Your task to perform on an android device: turn on sleep mode Image 0: 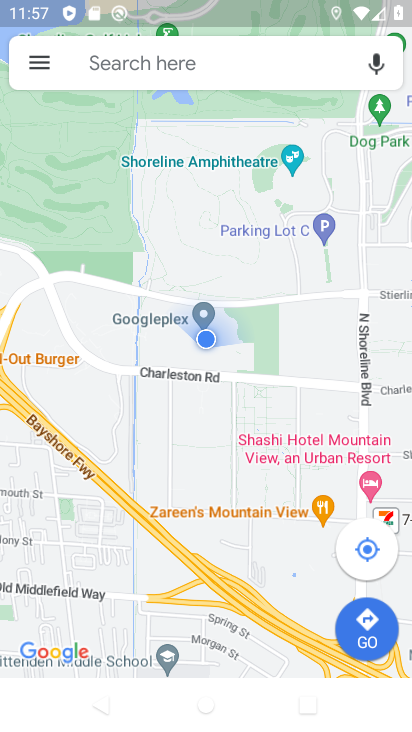
Step 0: press home button
Your task to perform on an android device: turn on sleep mode Image 1: 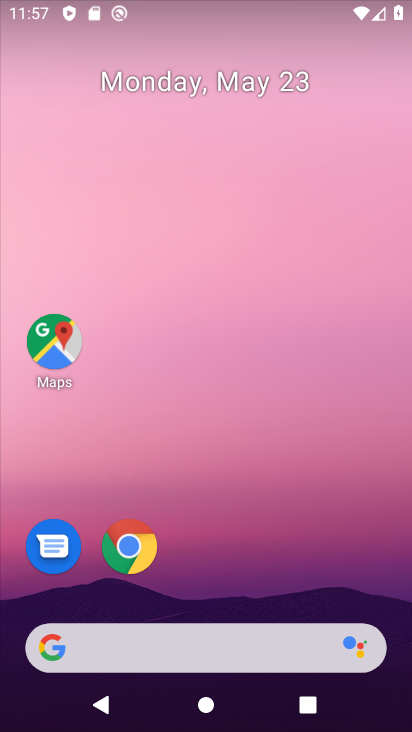
Step 1: drag from (249, 658) to (271, 3)
Your task to perform on an android device: turn on sleep mode Image 2: 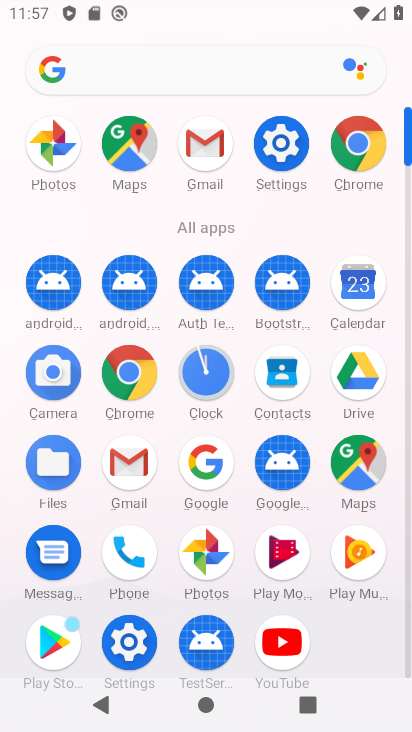
Step 2: click (287, 132)
Your task to perform on an android device: turn on sleep mode Image 3: 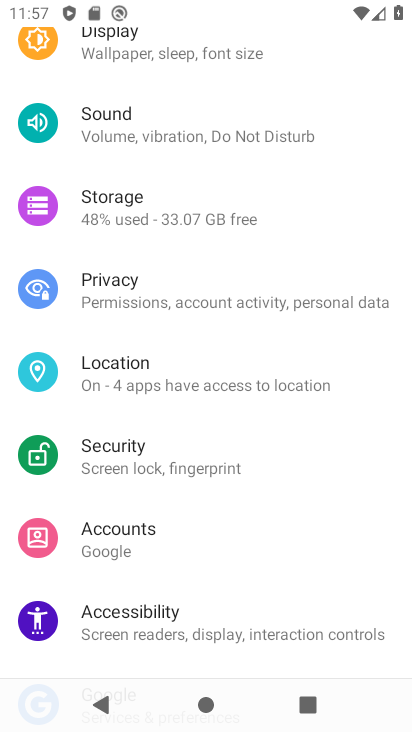
Step 3: drag from (272, 163) to (391, 455)
Your task to perform on an android device: turn on sleep mode Image 4: 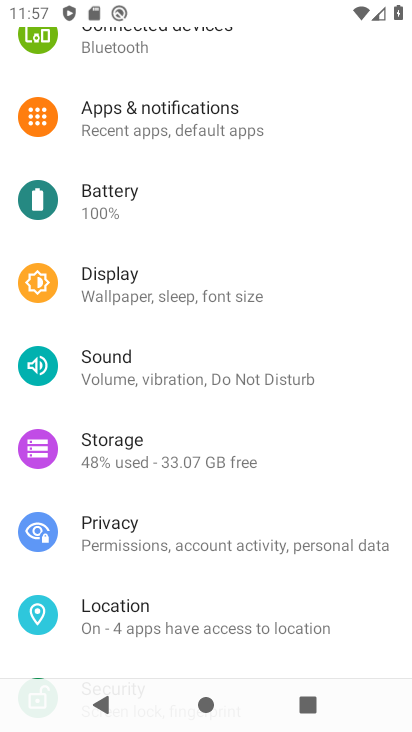
Step 4: click (239, 536)
Your task to perform on an android device: turn on sleep mode Image 5: 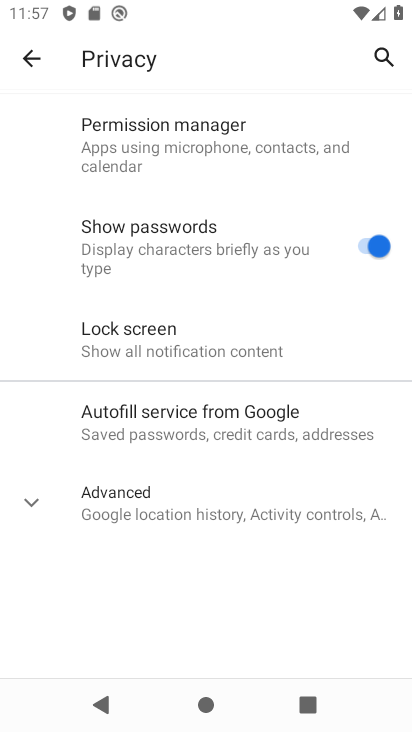
Step 5: task complete